Your task to perform on an android device: toggle sleep mode Image 0: 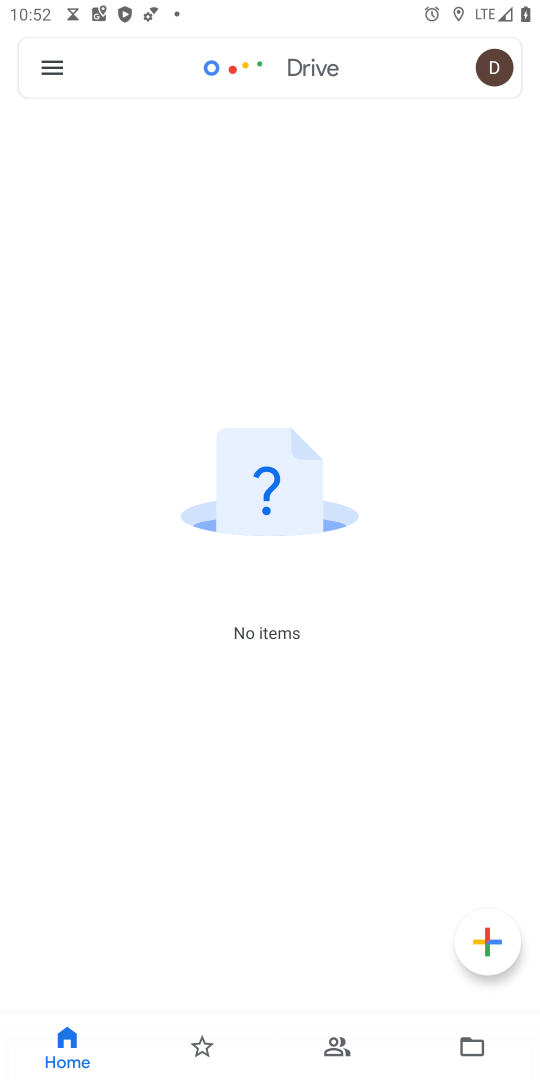
Step 0: press home button
Your task to perform on an android device: toggle sleep mode Image 1: 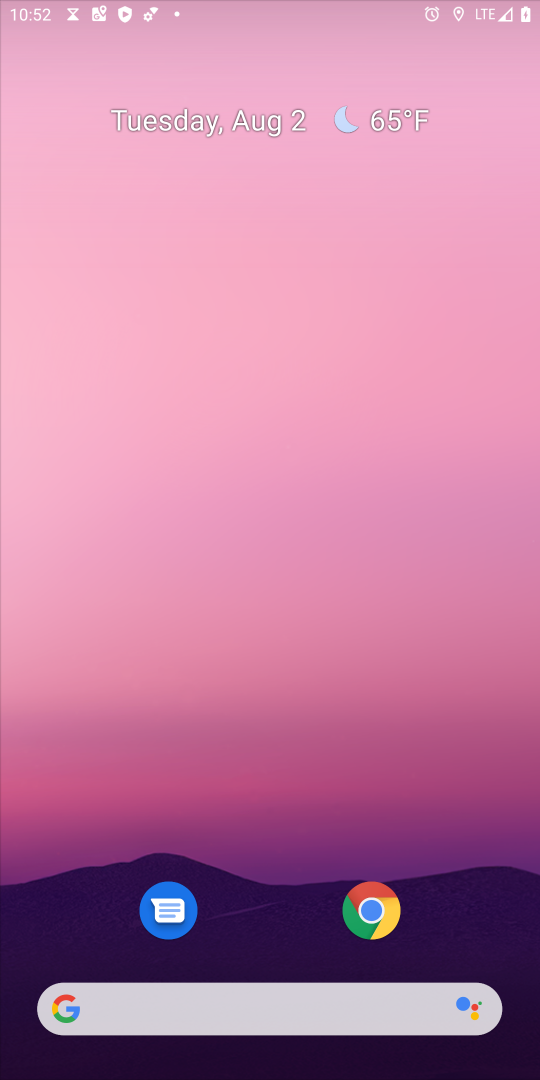
Step 1: drag from (282, 909) to (291, 241)
Your task to perform on an android device: toggle sleep mode Image 2: 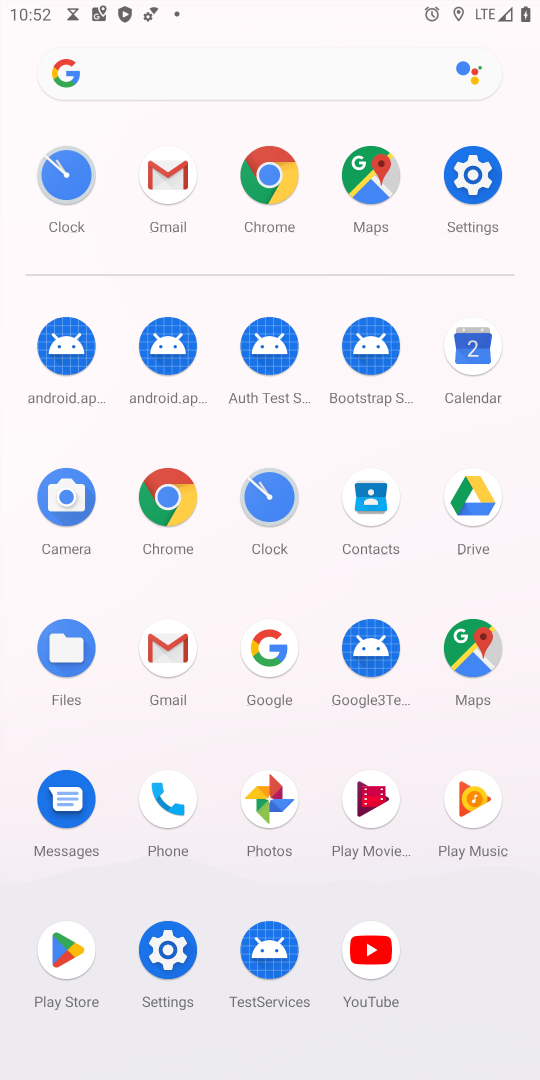
Step 2: click (468, 155)
Your task to perform on an android device: toggle sleep mode Image 3: 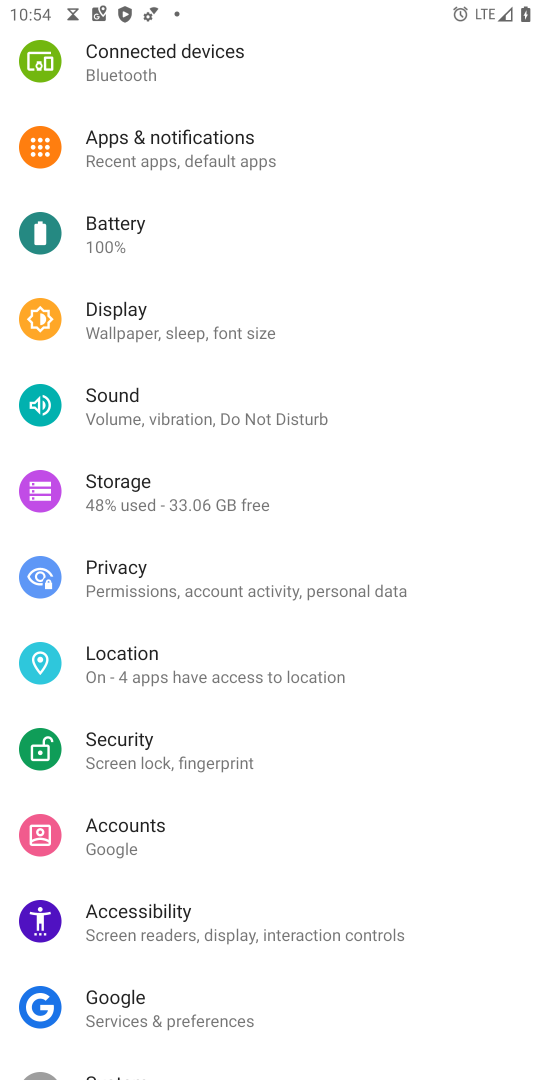
Step 3: task complete